Your task to perform on an android device: open wifi settings Image 0: 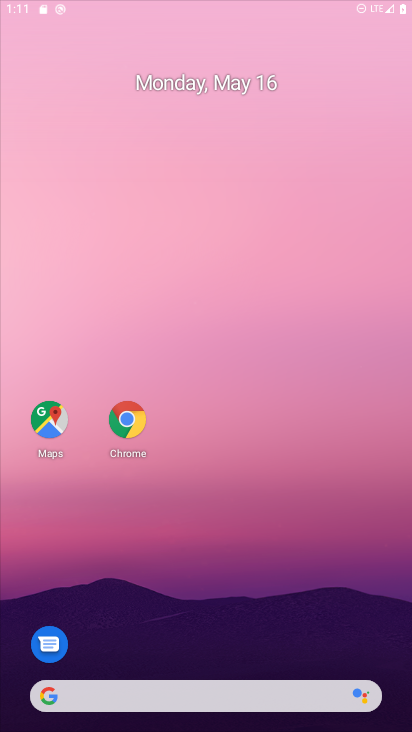
Step 0: drag from (179, 261) to (230, 132)
Your task to perform on an android device: open wifi settings Image 1: 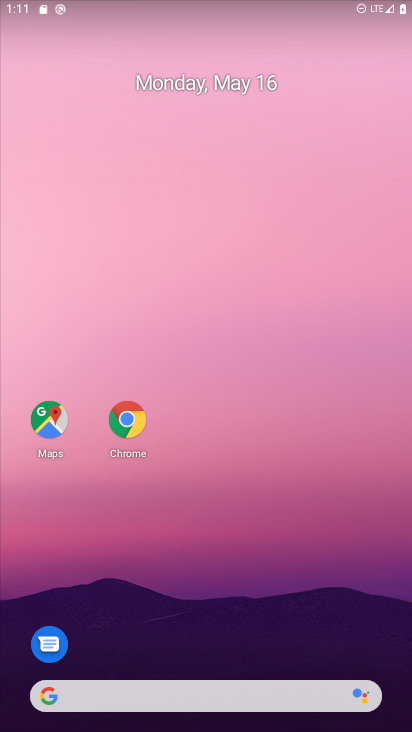
Step 1: drag from (132, 652) to (119, 164)
Your task to perform on an android device: open wifi settings Image 2: 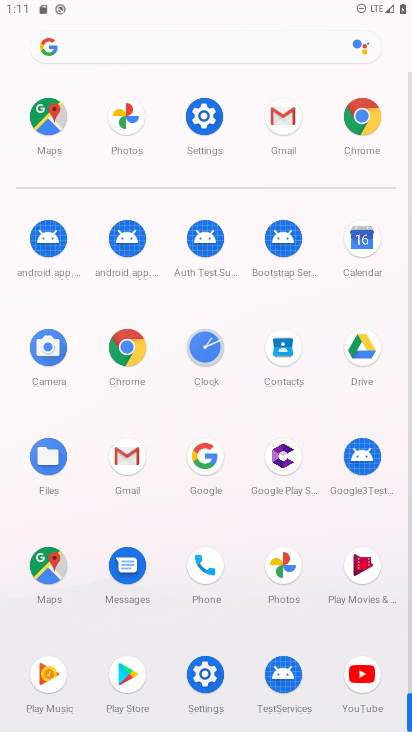
Step 2: drag from (156, 588) to (208, 106)
Your task to perform on an android device: open wifi settings Image 3: 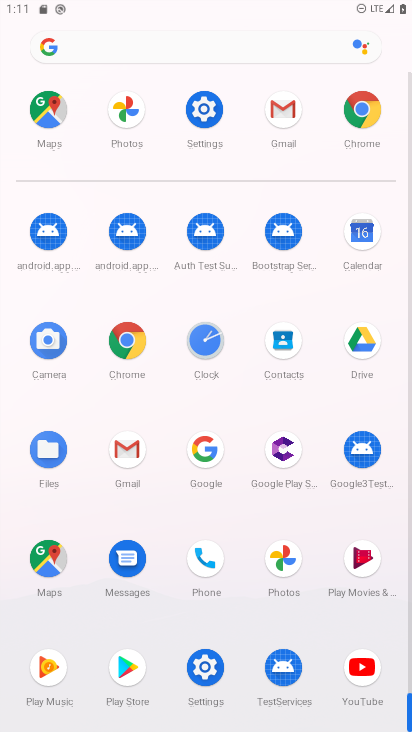
Step 3: click (201, 111)
Your task to perform on an android device: open wifi settings Image 4: 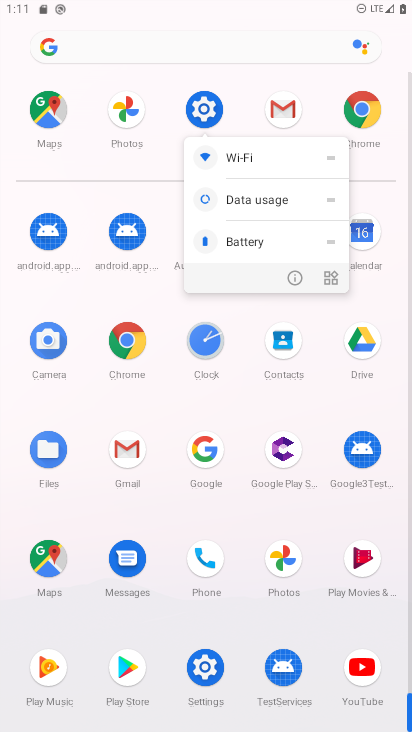
Step 4: click (225, 158)
Your task to perform on an android device: open wifi settings Image 5: 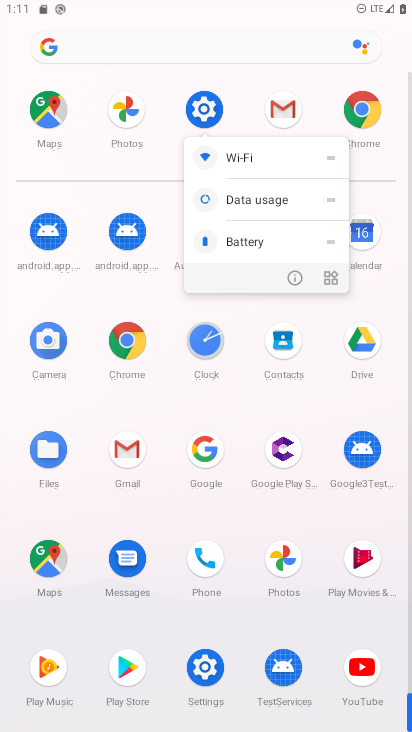
Step 5: click (243, 132)
Your task to perform on an android device: open wifi settings Image 6: 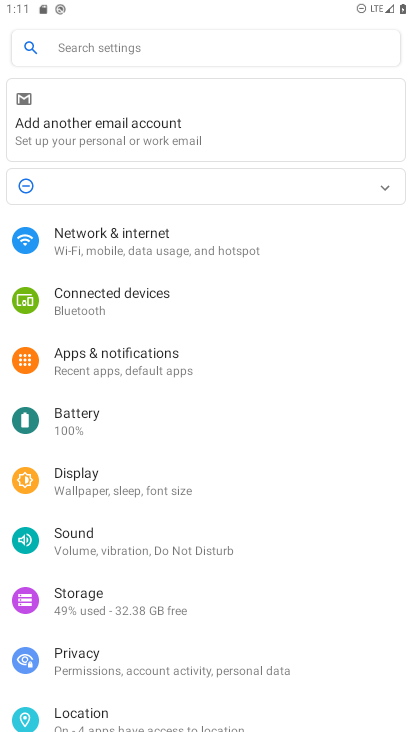
Step 6: click (245, 241)
Your task to perform on an android device: open wifi settings Image 7: 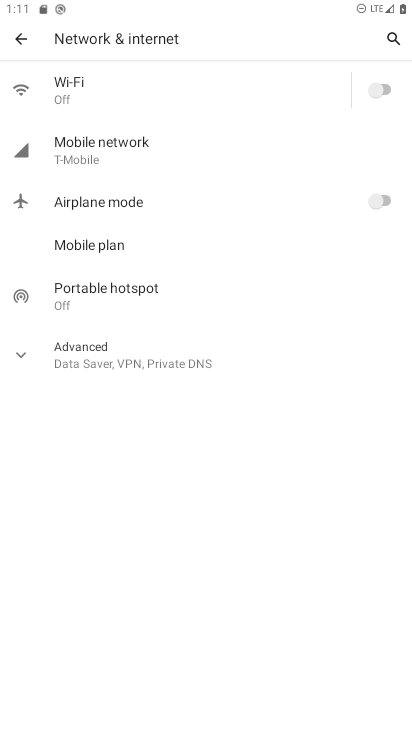
Step 7: click (137, 85)
Your task to perform on an android device: open wifi settings Image 8: 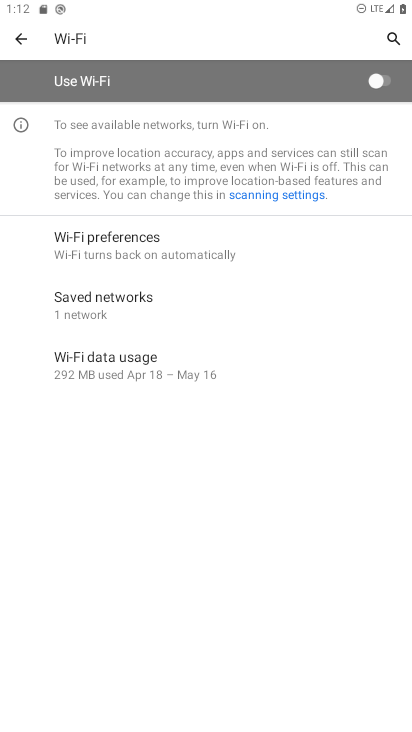
Step 8: task complete